Your task to perform on an android device: turn on the 12-hour format for clock Image 0: 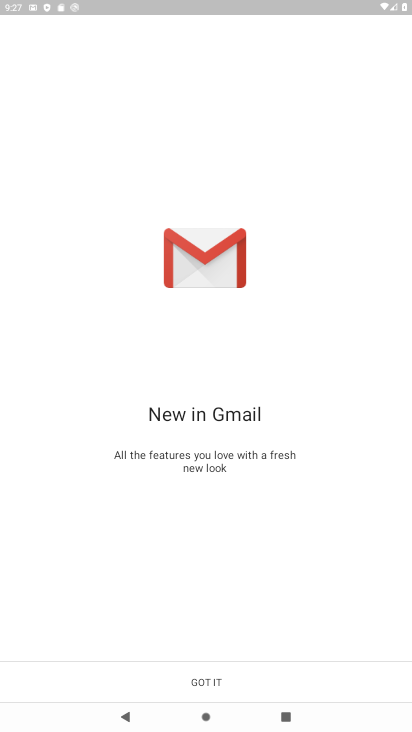
Step 0: press home button
Your task to perform on an android device: turn on the 12-hour format for clock Image 1: 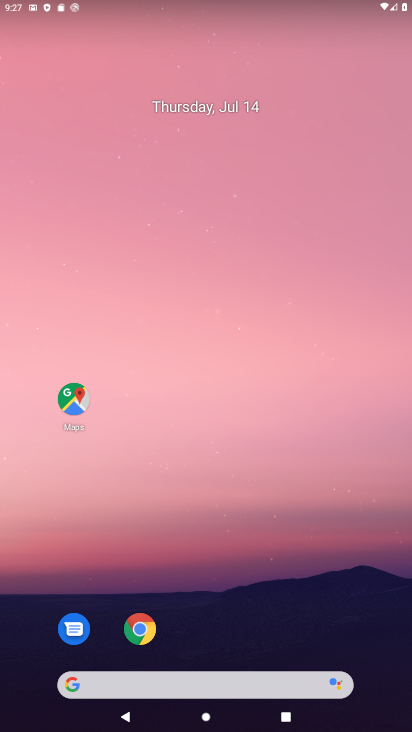
Step 1: drag from (268, 566) to (299, 256)
Your task to perform on an android device: turn on the 12-hour format for clock Image 2: 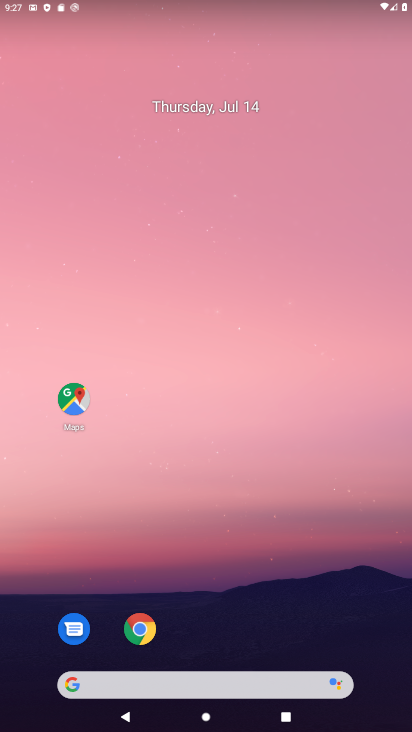
Step 2: drag from (241, 607) to (246, 125)
Your task to perform on an android device: turn on the 12-hour format for clock Image 3: 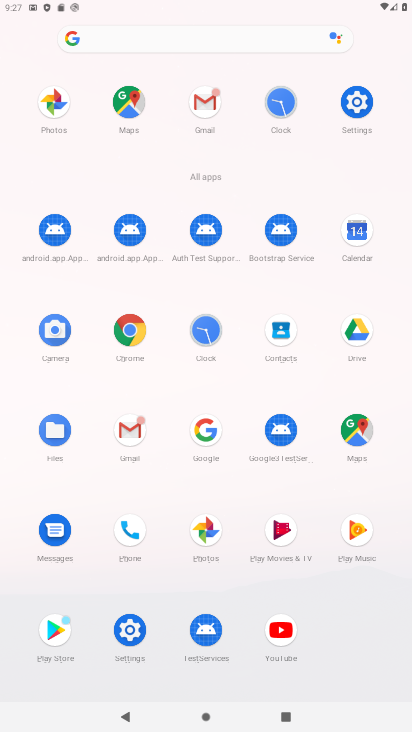
Step 3: click (216, 319)
Your task to perform on an android device: turn on the 12-hour format for clock Image 4: 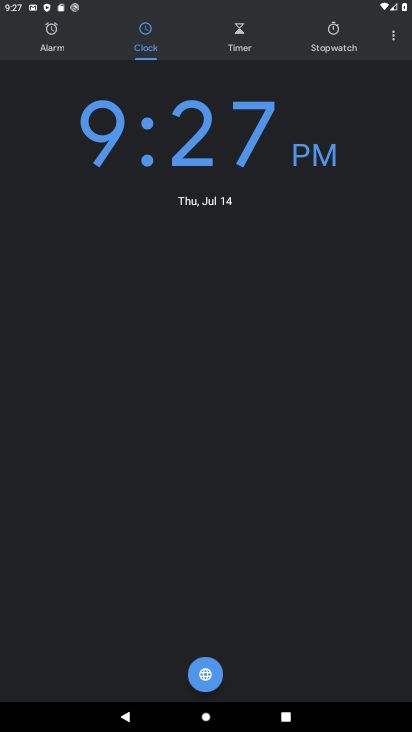
Step 4: click (390, 34)
Your task to perform on an android device: turn on the 12-hour format for clock Image 5: 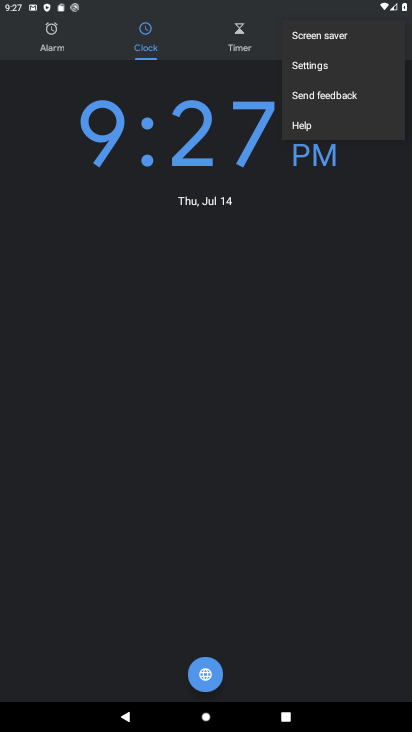
Step 5: click (330, 76)
Your task to perform on an android device: turn on the 12-hour format for clock Image 6: 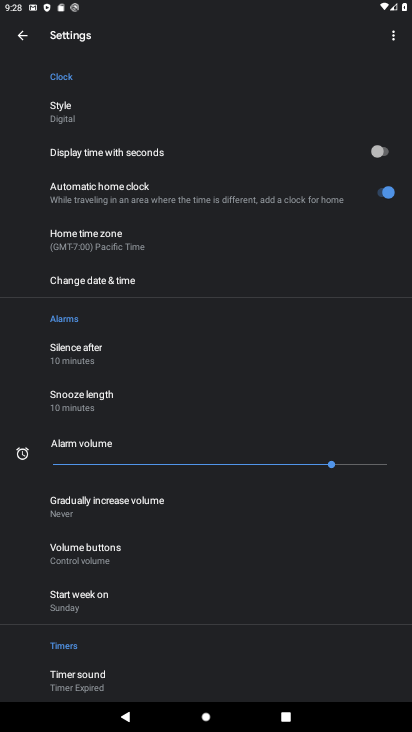
Step 6: click (130, 281)
Your task to perform on an android device: turn on the 12-hour format for clock Image 7: 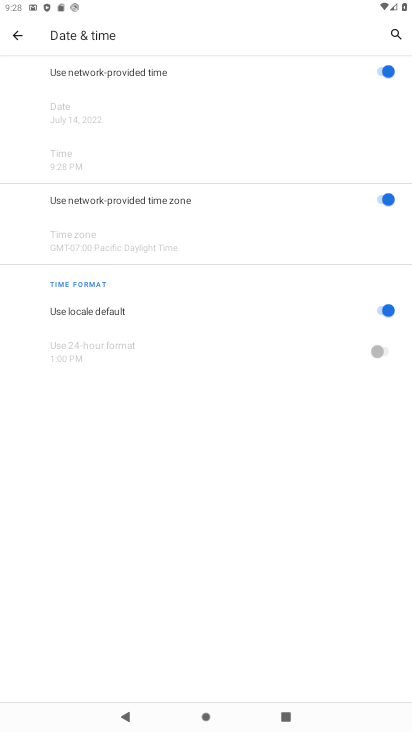
Step 7: click (377, 318)
Your task to perform on an android device: turn on the 12-hour format for clock Image 8: 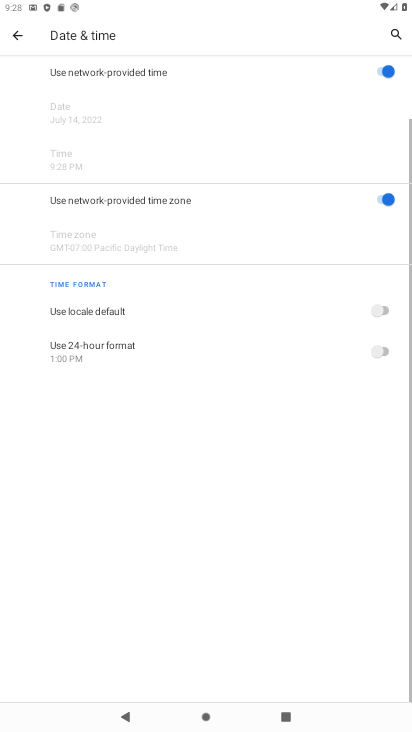
Step 8: click (379, 342)
Your task to perform on an android device: turn on the 12-hour format for clock Image 9: 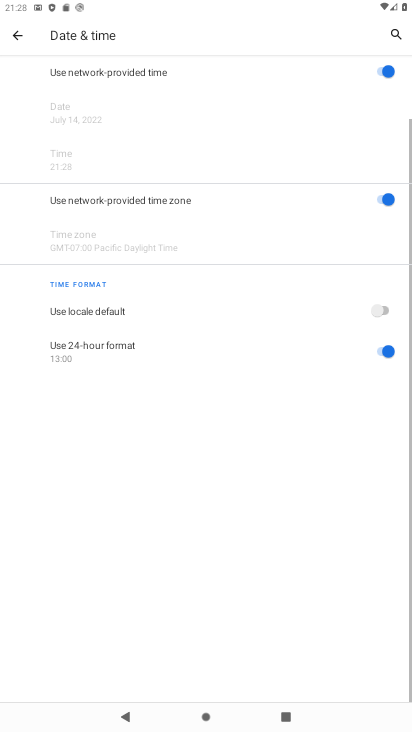
Step 9: task complete